Your task to perform on an android device: delete the emails in spam in the gmail app Image 0: 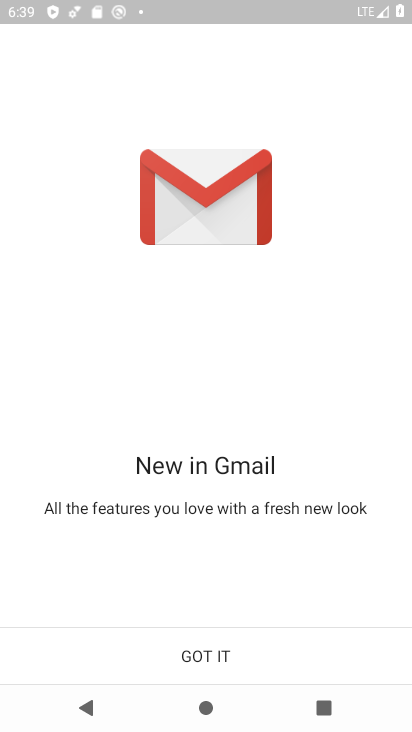
Step 0: press back button
Your task to perform on an android device: delete the emails in spam in the gmail app Image 1: 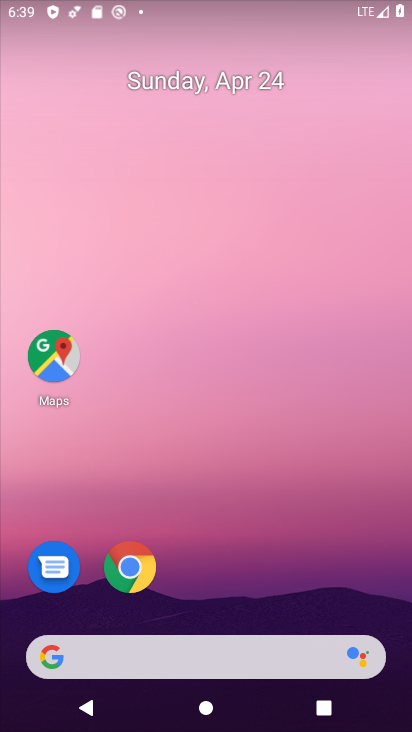
Step 1: drag from (327, 565) to (208, 75)
Your task to perform on an android device: delete the emails in spam in the gmail app Image 2: 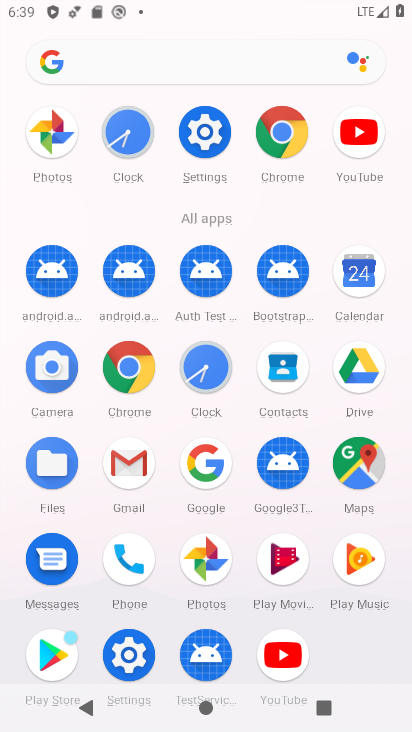
Step 2: click (132, 468)
Your task to perform on an android device: delete the emails in spam in the gmail app Image 3: 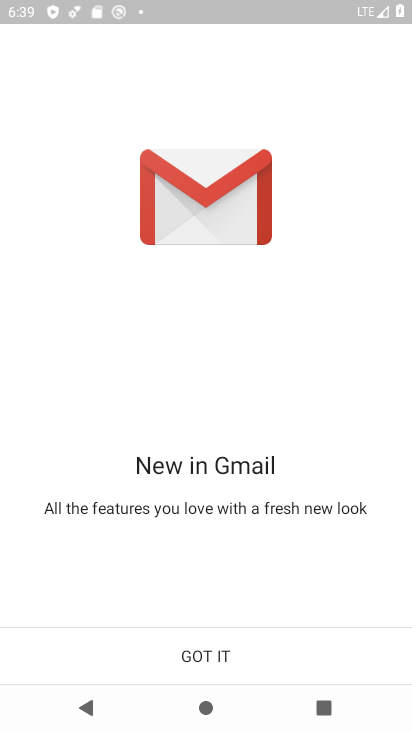
Step 3: click (153, 657)
Your task to perform on an android device: delete the emails in spam in the gmail app Image 4: 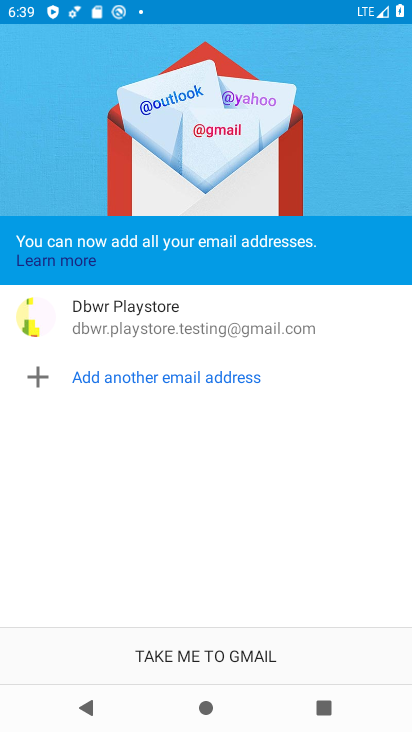
Step 4: click (152, 656)
Your task to perform on an android device: delete the emails in spam in the gmail app Image 5: 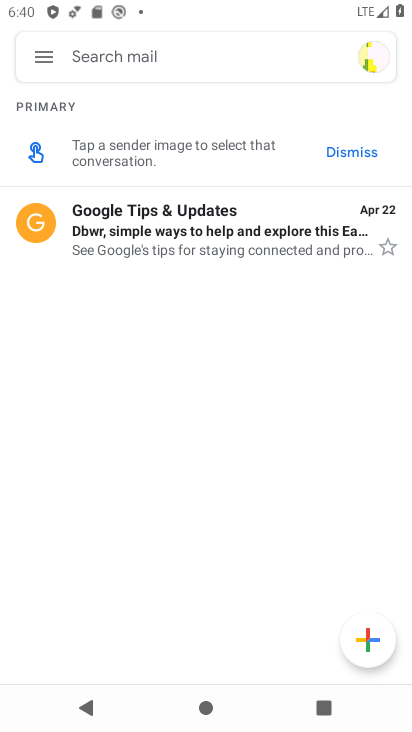
Step 5: click (38, 40)
Your task to perform on an android device: delete the emails in spam in the gmail app Image 6: 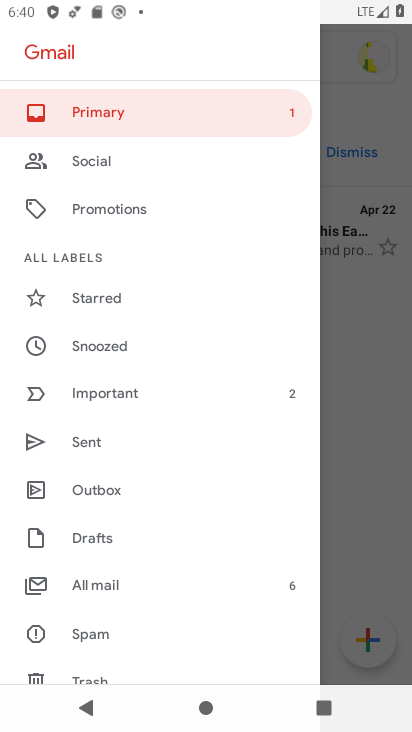
Step 6: click (144, 637)
Your task to perform on an android device: delete the emails in spam in the gmail app Image 7: 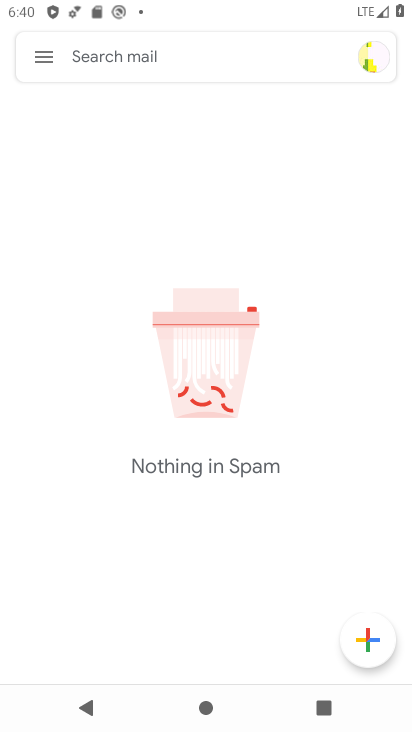
Step 7: task complete